Your task to perform on an android device: turn notification dots off Image 0: 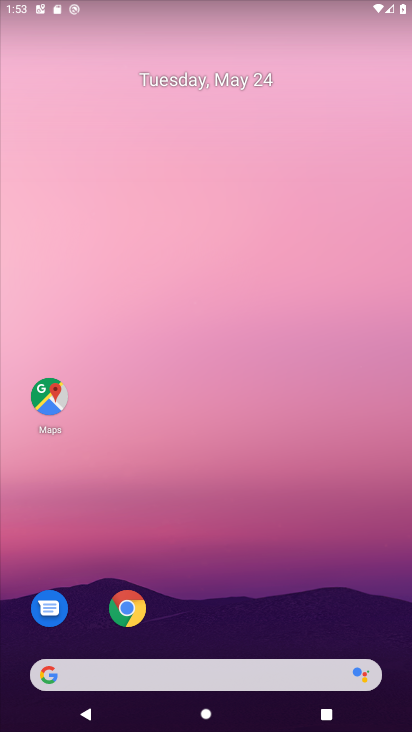
Step 0: drag from (316, 578) to (236, 200)
Your task to perform on an android device: turn notification dots off Image 1: 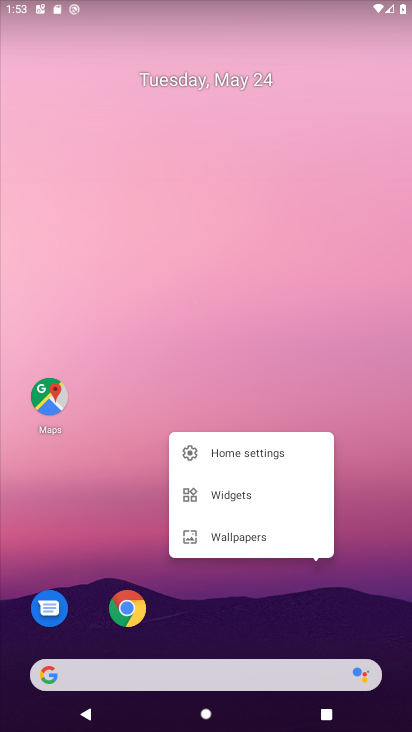
Step 1: click (239, 205)
Your task to perform on an android device: turn notification dots off Image 2: 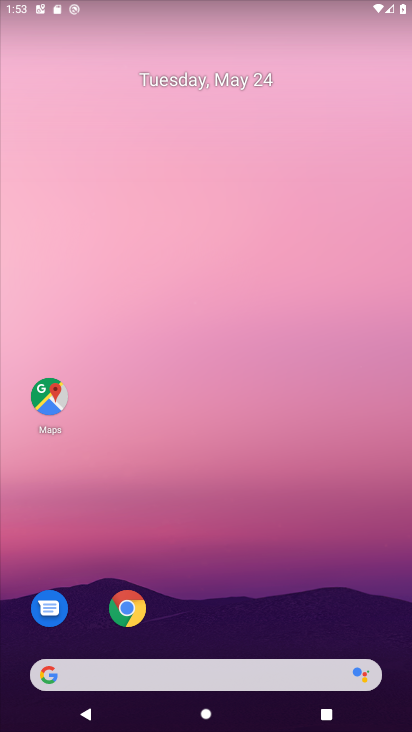
Step 2: drag from (295, 636) to (271, 169)
Your task to perform on an android device: turn notification dots off Image 3: 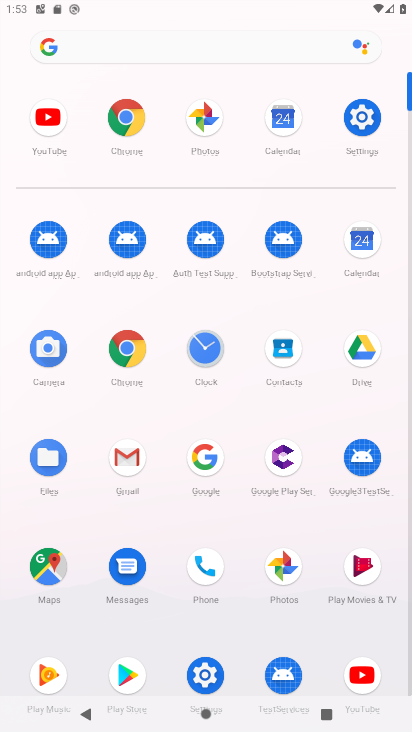
Step 3: click (353, 152)
Your task to perform on an android device: turn notification dots off Image 4: 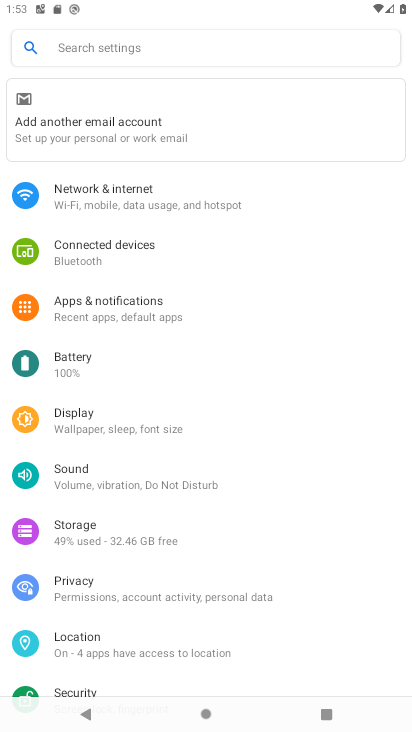
Step 4: click (224, 327)
Your task to perform on an android device: turn notification dots off Image 5: 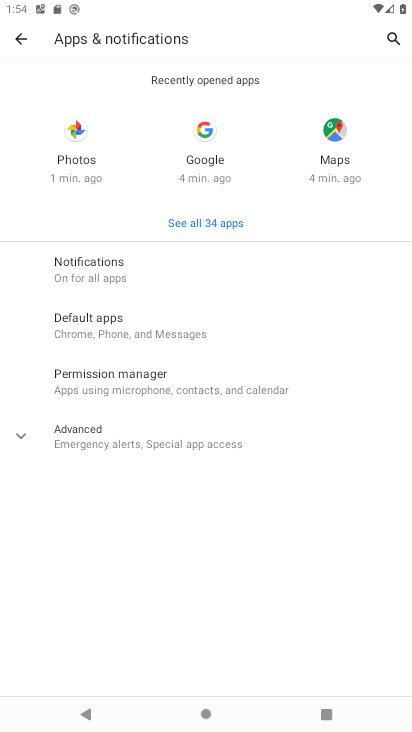
Step 5: click (134, 294)
Your task to perform on an android device: turn notification dots off Image 6: 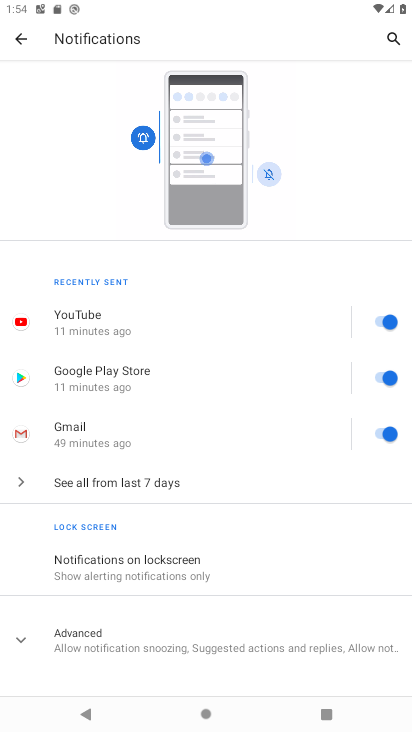
Step 6: drag from (233, 552) to (227, 323)
Your task to perform on an android device: turn notification dots off Image 7: 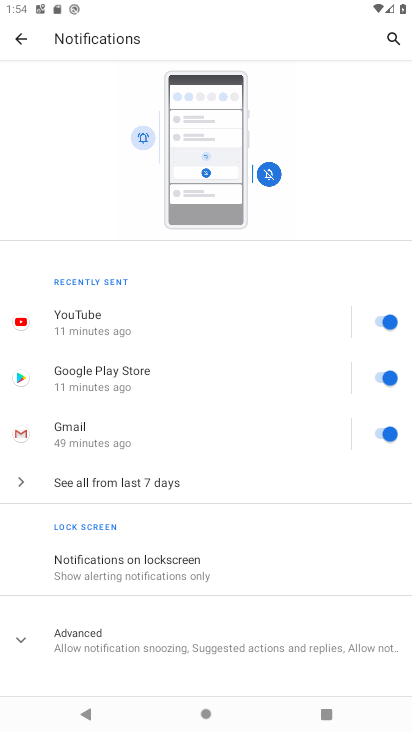
Step 7: click (216, 627)
Your task to perform on an android device: turn notification dots off Image 8: 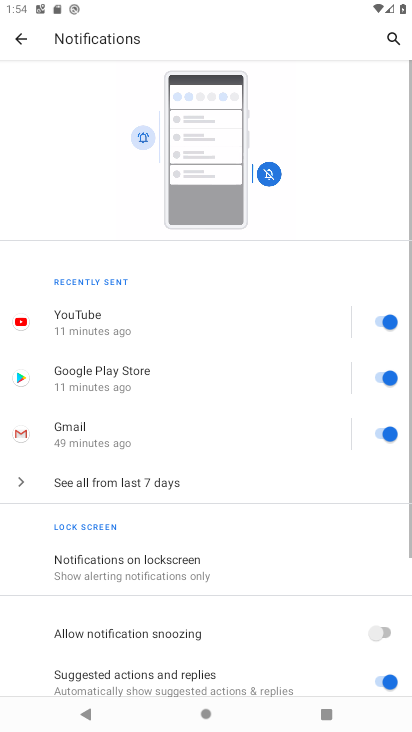
Step 8: drag from (216, 627) to (220, 379)
Your task to perform on an android device: turn notification dots off Image 9: 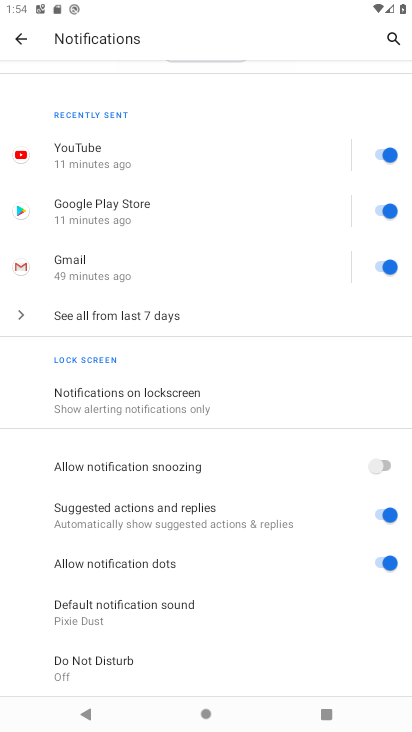
Step 9: click (362, 574)
Your task to perform on an android device: turn notification dots off Image 10: 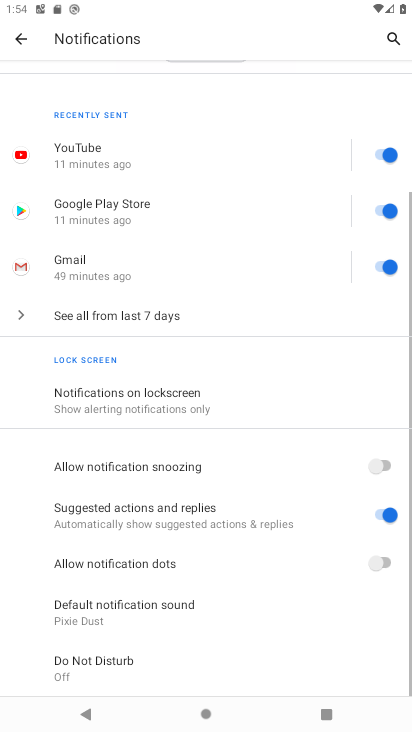
Step 10: task complete